Your task to perform on an android device: Do I have any events today? Image 0: 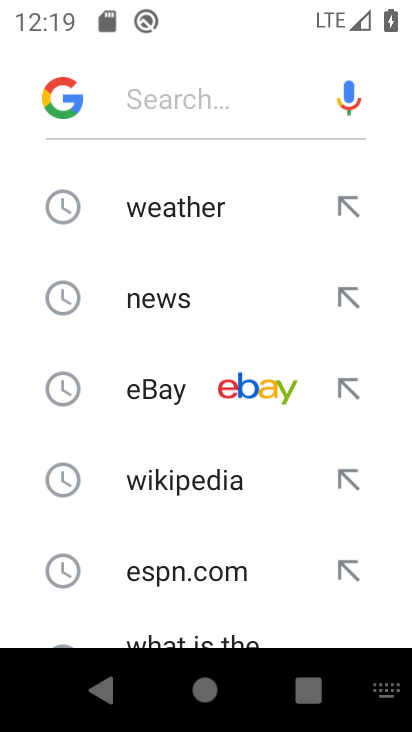
Step 0: press home button
Your task to perform on an android device: Do I have any events today? Image 1: 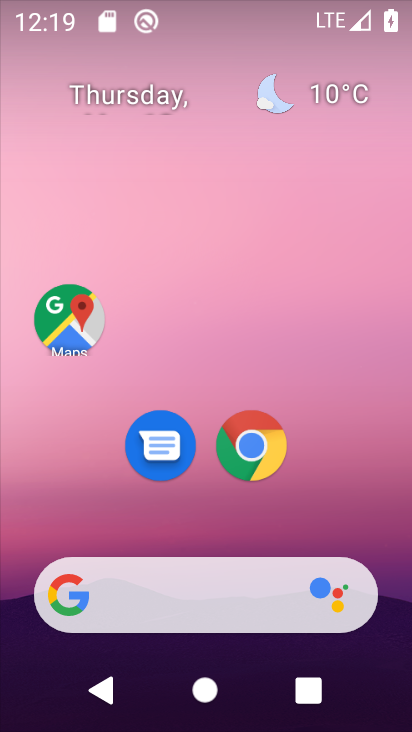
Step 1: drag from (166, 526) to (225, 0)
Your task to perform on an android device: Do I have any events today? Image 2: 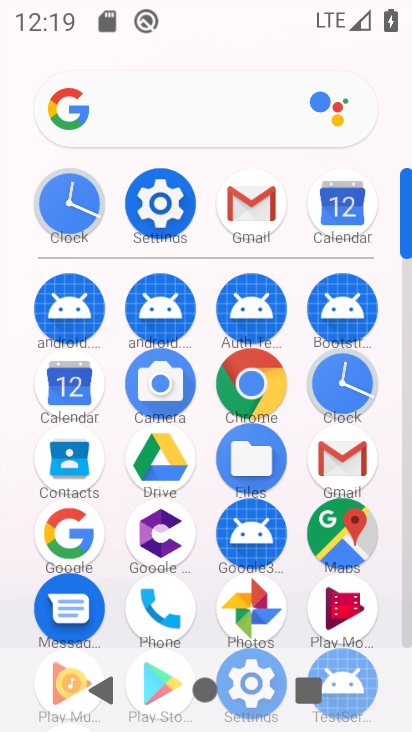
Step 2: click (340, 203)
Your task to perform on an android device: Do I have any events today? Image 3: 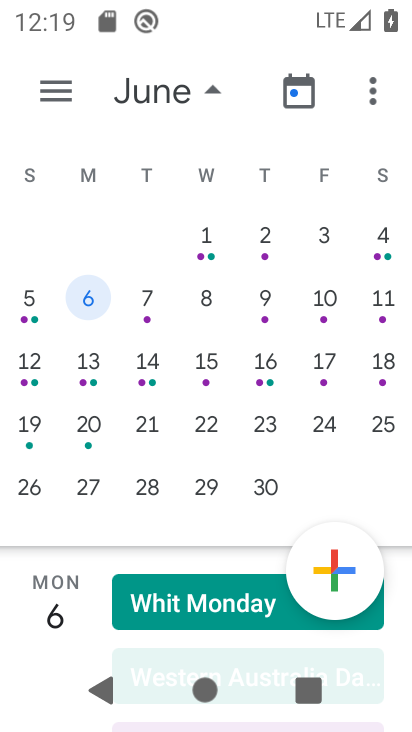
Step 3: click (195, 87)
Your task to perform on an android device: Do I have any events today? Image 4: 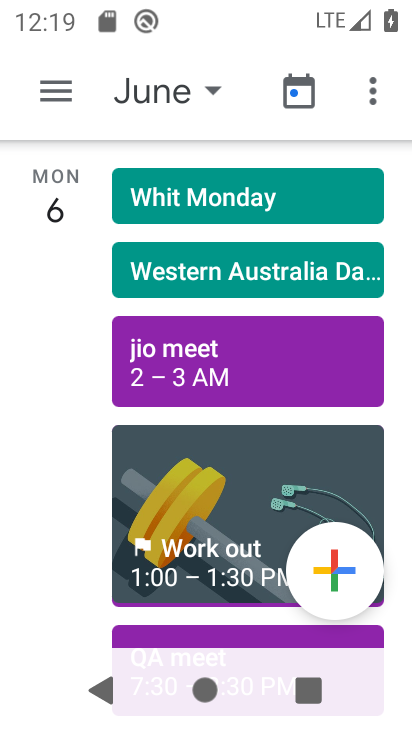
Step 4: click (179, 92)
Your task to perform on an android device: Do I have any events today? Image 5: 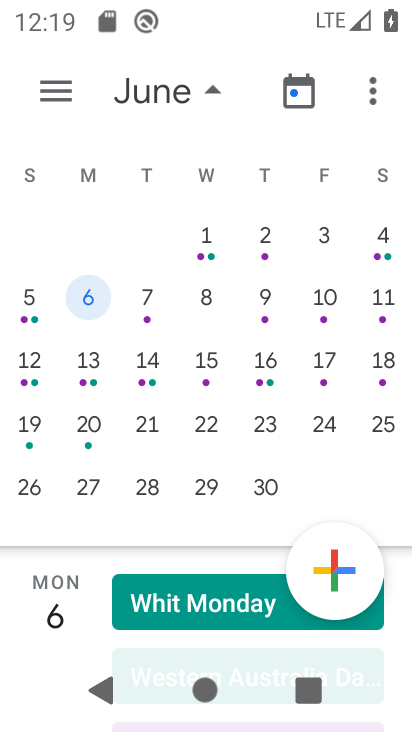
Step 5: drag from (54, 292) to (364, 348)
Your task to perform on an android device: Do I have any events today? Image 6: 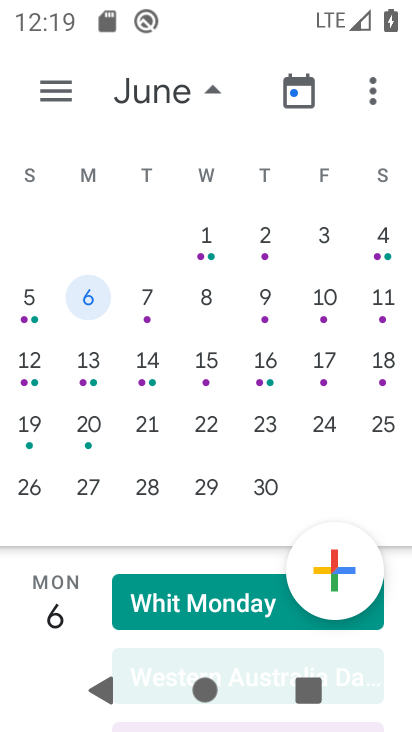
Step 6: drag from (24, 355) to (403, 341)
Your task to perform on an android device: Do I have any events today? Image 7: 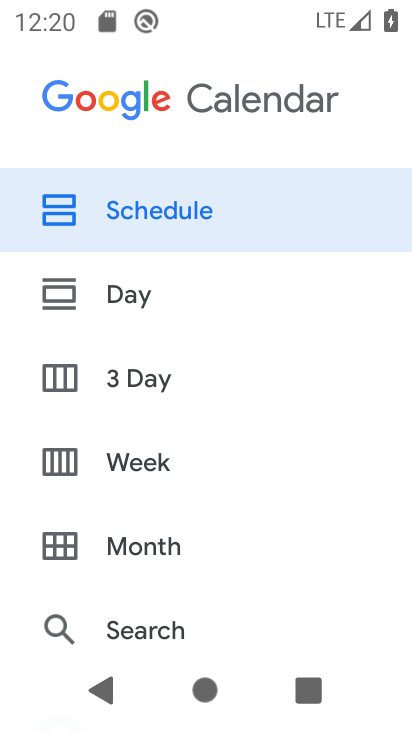
Step 7: drag from (409, 358) to (28, 343)
Your task to perform on an android device: Do I have any events today? Image 8: 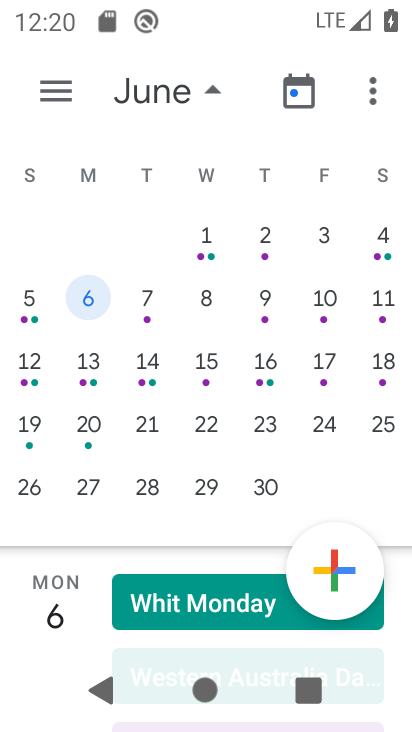
Step 8: drag from (68, 356) to (410, 344)
Your task to perform on an android device: Do I have any events today? Image 9: 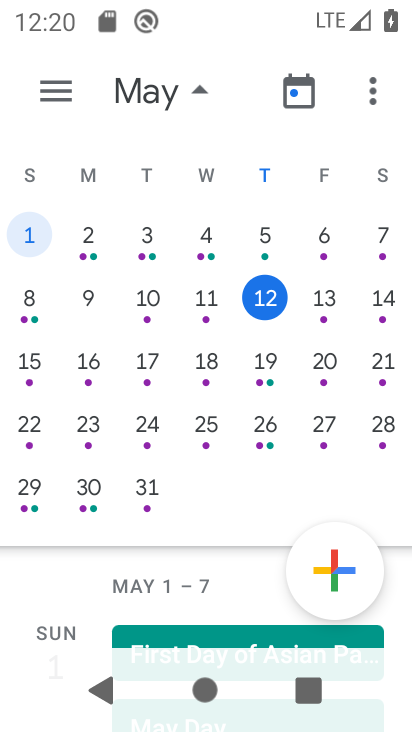
Step 9: click (258, 292)
Your task to perform on an android device: Do I have any events today? Image 10: 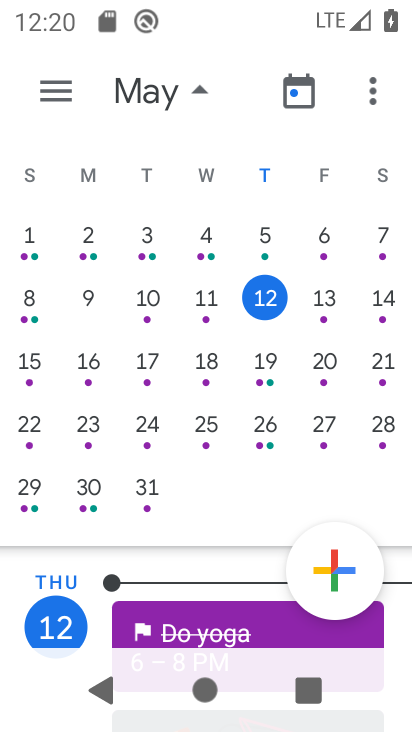
Step 10: drag from (150, 592) to (213, 123)
Your task to perform on an android device: Do I have any events today? Image 11: 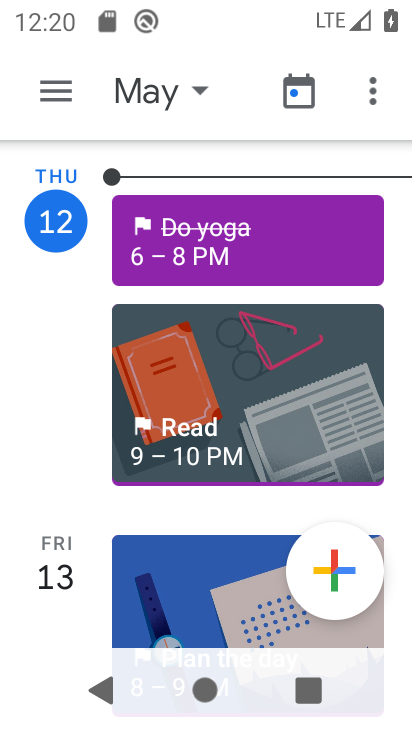
Step 11: click (229, 256)
Your task to perform on an android device: Do I have any events today? Image 12: 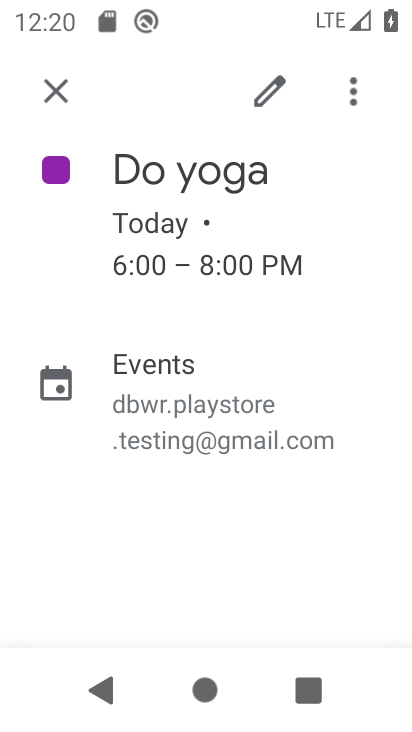
Step 12: task complete